Your task to perform on an android device: delete the emails in spam in the gmail app Image 0: 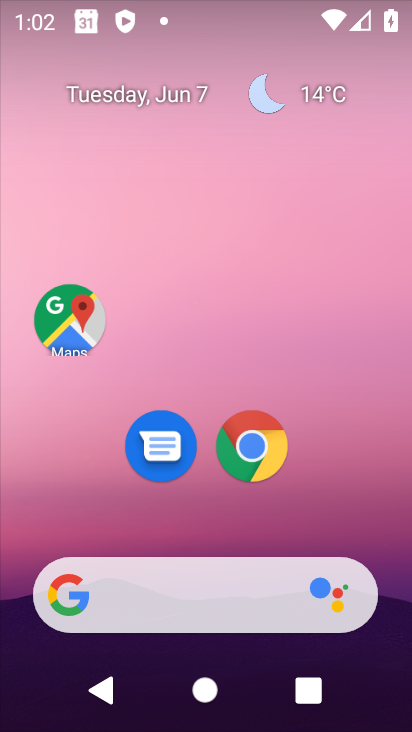
Step 0: drag from (389, 503) to (258, 10)
Your task to perform on an android device: delete the emails in spam in the gmail app Image 1: 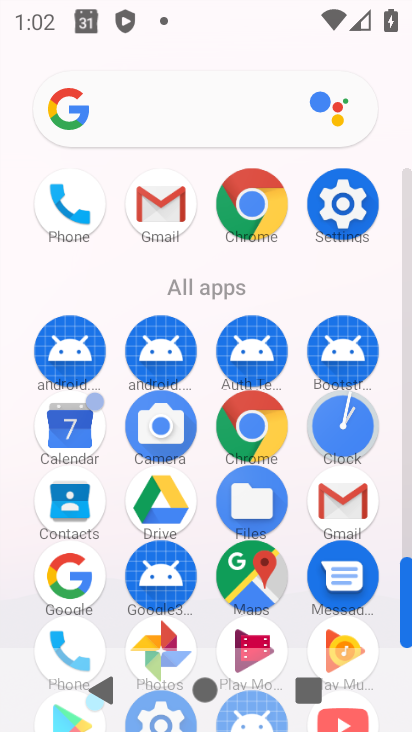
Step 1: drag from (11, 560) to (17, 270)
Your task to perform on an android device: delete the emails in spam in the gmail app Image 2: 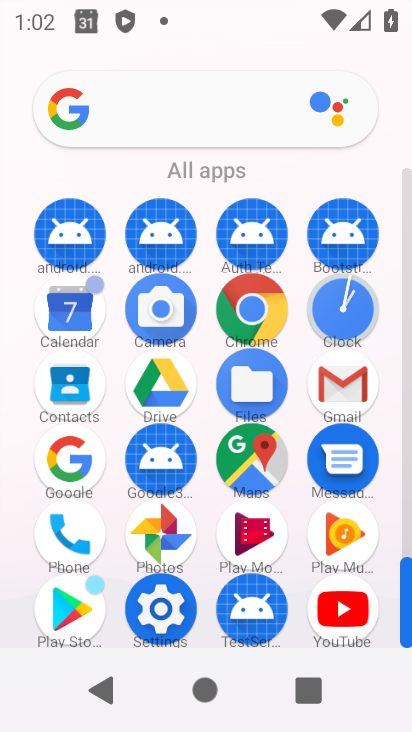
Step 2: click (343, 379)
Your task to perform on an android device: delete the emails in spam in the gmail app Image 3: 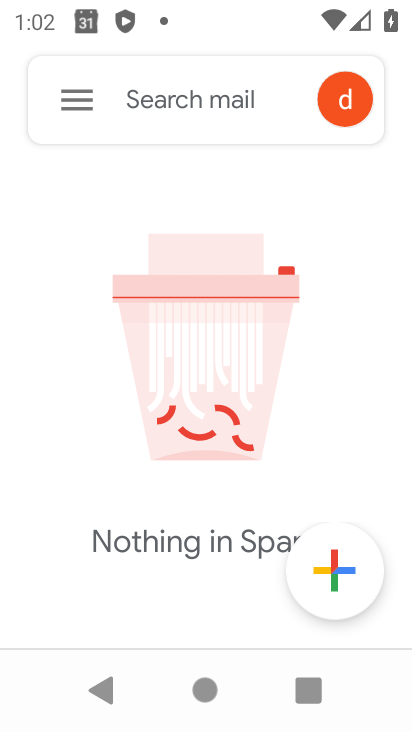
Step 3: click (75, 111)
Your task to perform on an android device: delete the emails in spam in the gmail app Image 4: 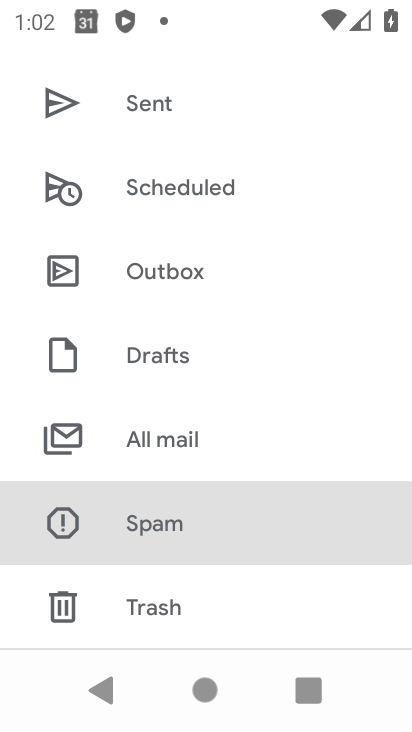
Step 4: click (189, 518)
Your task to perform on an android device: delete the emails in spam in the gmail app Image 5: 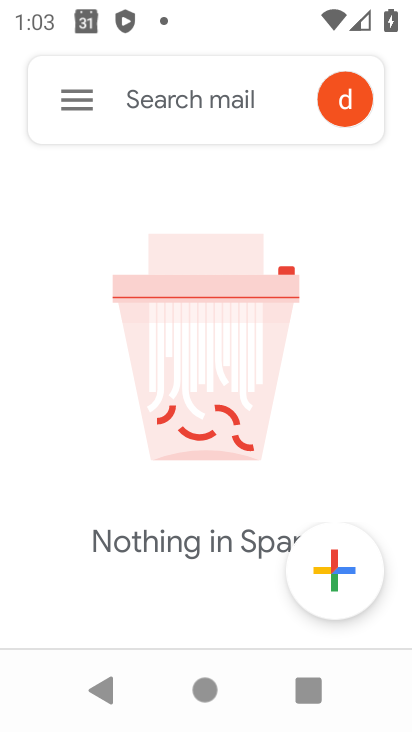
Step 5: task complete